Your task to perform on an android device: Go to Android settings Image 0: 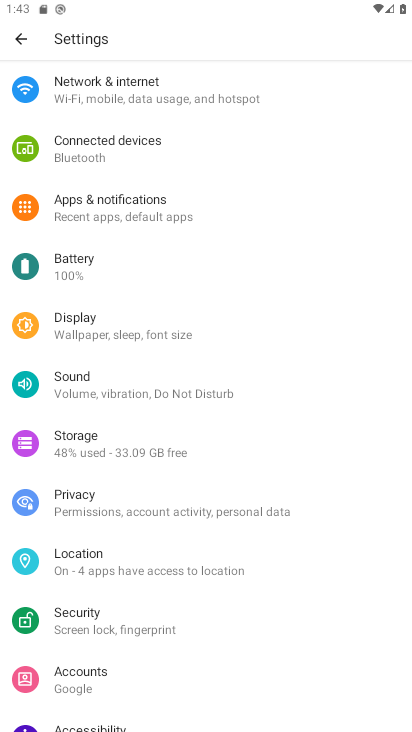
Step 0: task complete